Your task to perform on an android device: open app "Expedia: Hotels, Flights & Car" (install if not already installed) Image 0: 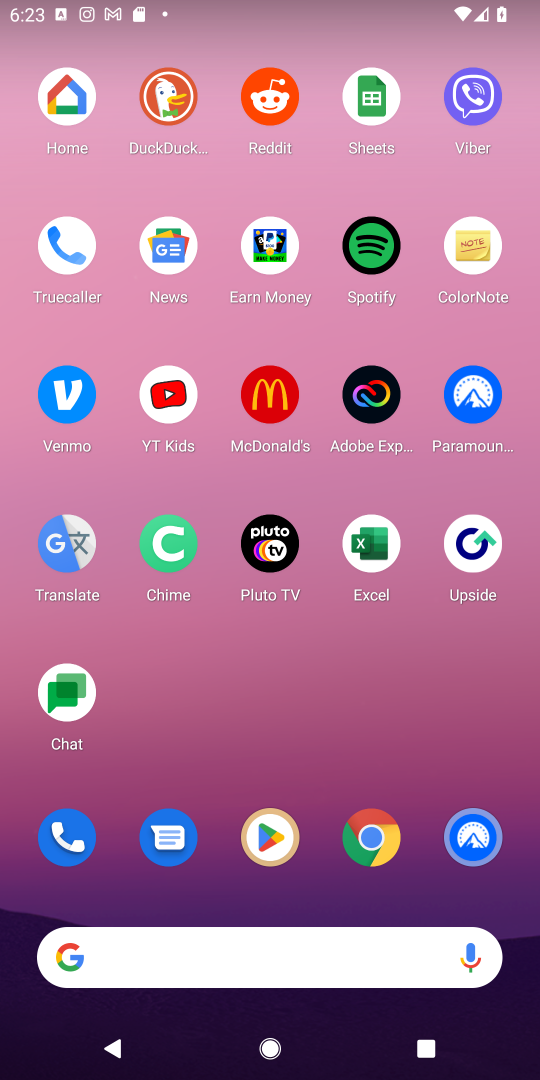
Step 0: press home button
Your task to perform on an android device: open app "Expedia: Hotels, Flights & Car" (install if not already installed) Image 1: 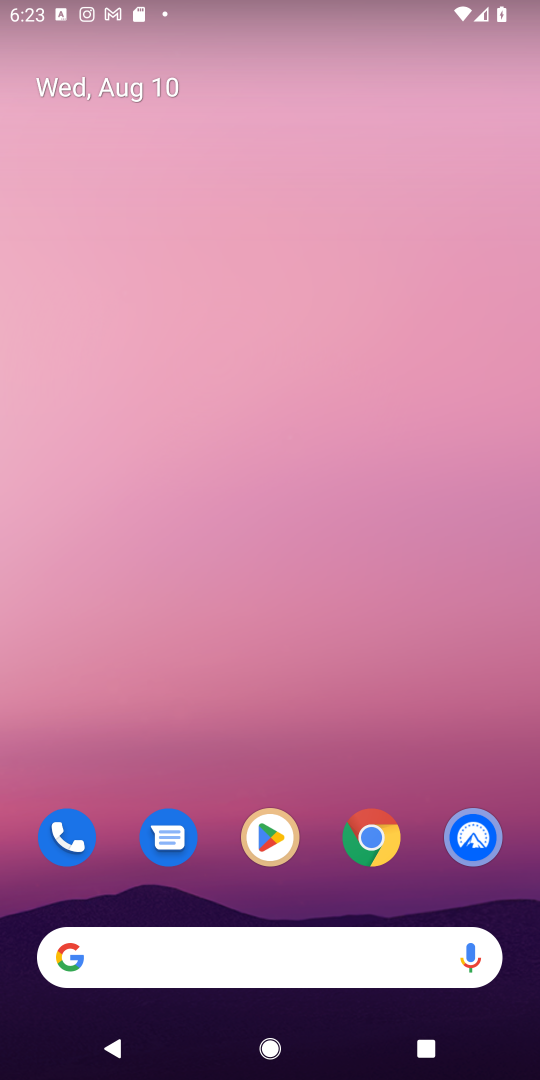
Step 1: click (263, 833)
Your task to perform on an android device: open app "Expedia: Hotels, Flights & Car" (install if not already installed) Image 2: 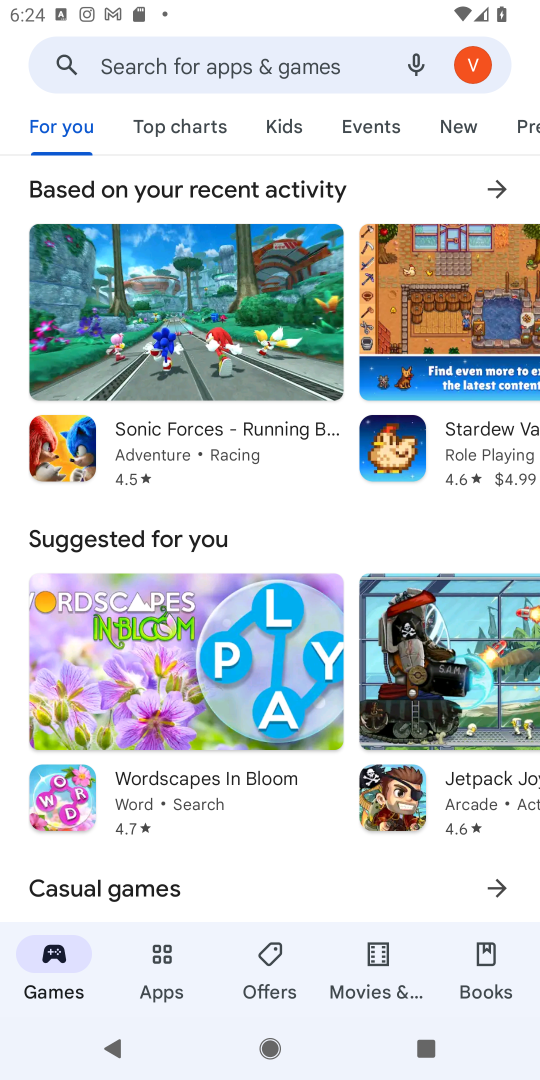
Step 2: click (275, 55)
Your task to perform on an android device: open app "Expedia: Hotels, Flights & Car" (install if not already installed) Image 3: 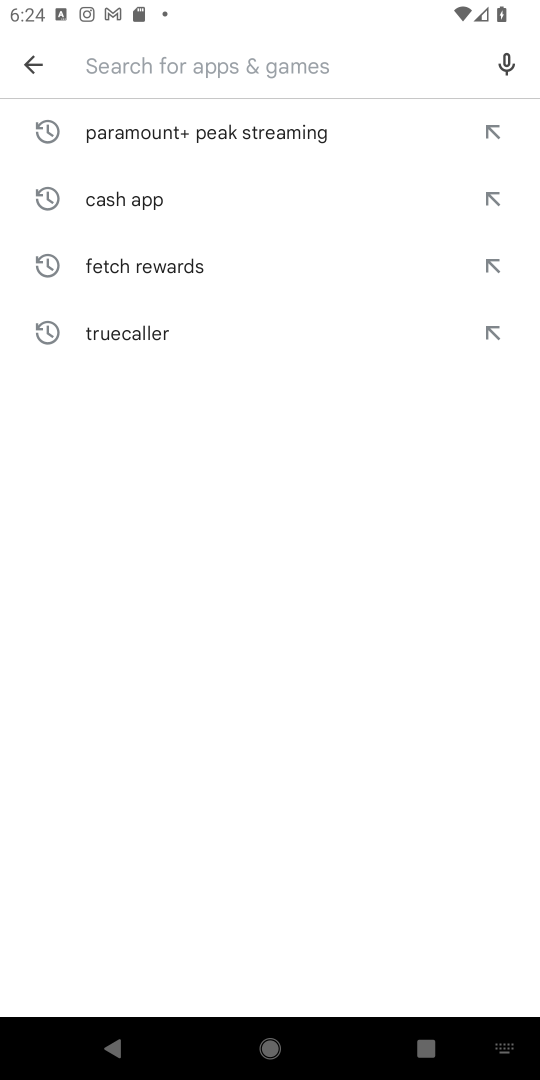
Step 3: type "Expedia: Hotels, Flights & Car"
Your task to perform on an android device: open app "Expedia: Hotels, Flights & Car" (install if not already installed) Image 4: 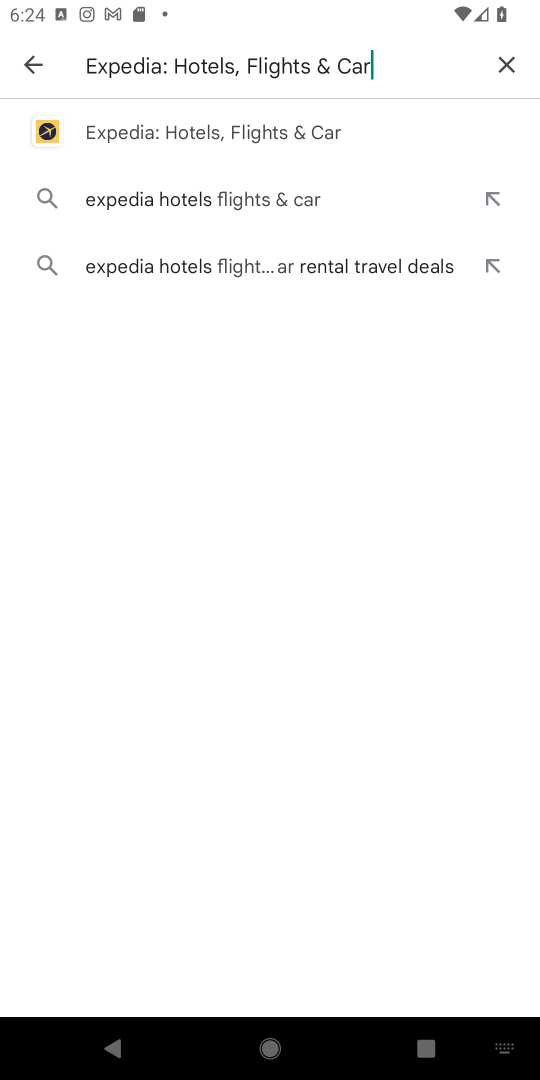
Step 4: click (203, 134)
Your task to perform on an android device: open app "Expedia: Hotels, Flights & Car" (install if not already installed) Image 5: 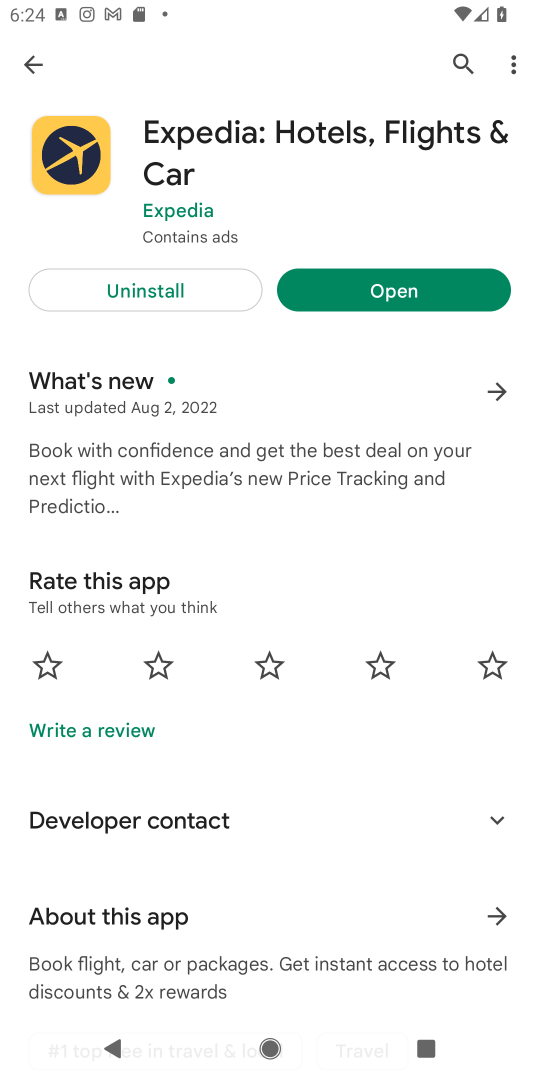
Step 5: click (375, 299)
Your task to perform on an android device: open app "Expedia: Hotels, Flights & Car" (install if not already installed) Image 6: 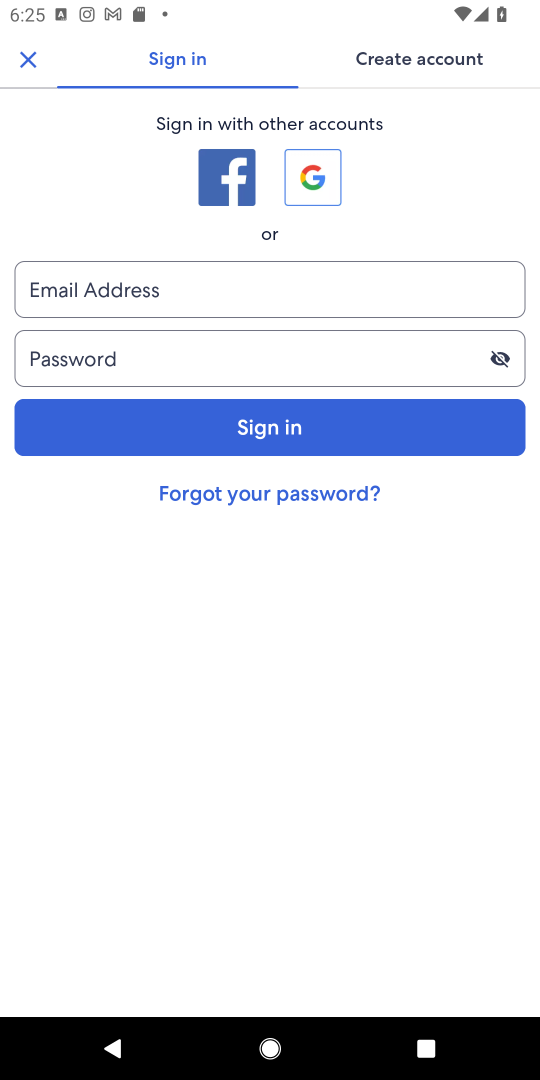
Step 6: task complete